Your task to perform on an android device: change notifications settings Image 0: 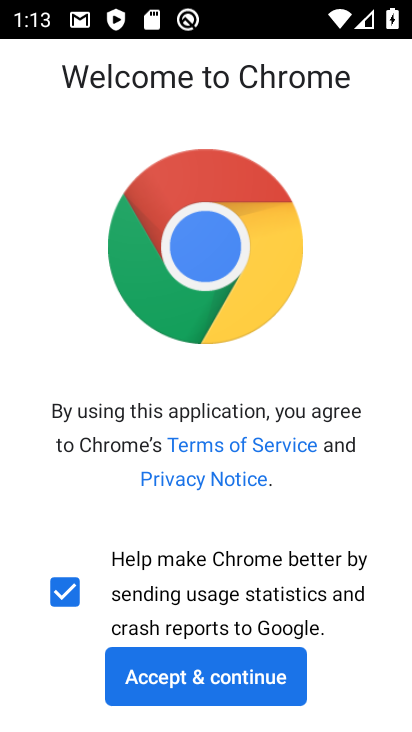
Step 0: press back button
Your task to perform on an android device: change notifications settings Image 1: 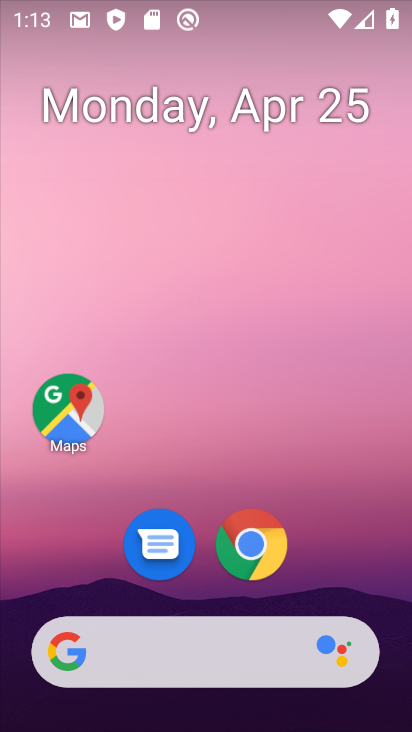
Step 1: drag from (192, 609) to (372, 20)
Your task to perform on an android device: change notifications settings Image 2: 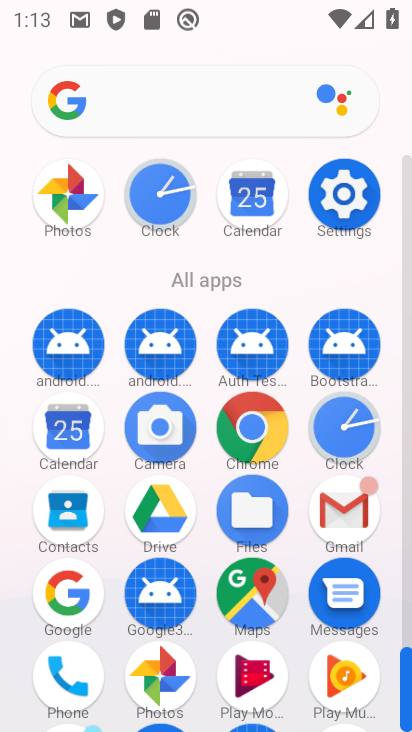
Step 2: click (339, 206)
Your task to perform on an android device: change notifications settings Image 3: 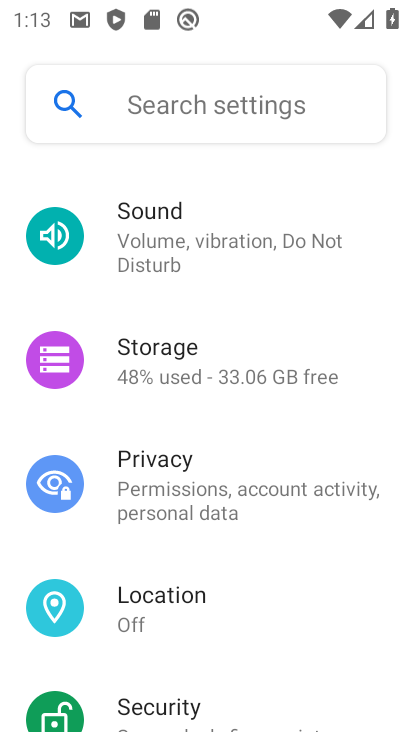
Step 3: drag from (325, 225) to (284, 527)
Your task to perform on an android device: change notifications settings Image 4: 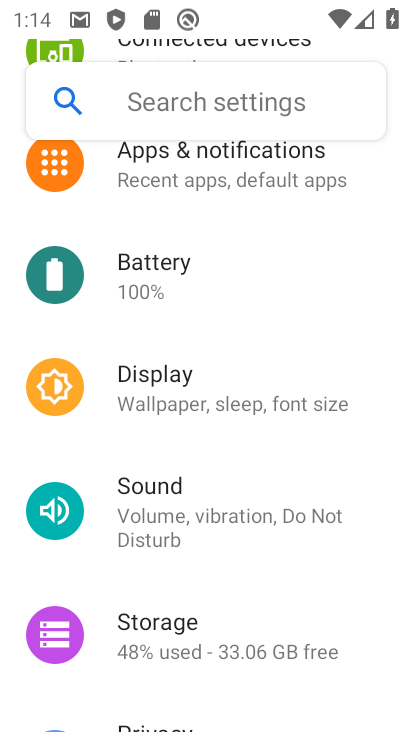
Step 4: click (289, 187)
Your task to perform on an android device: change notifications settings Image 5: 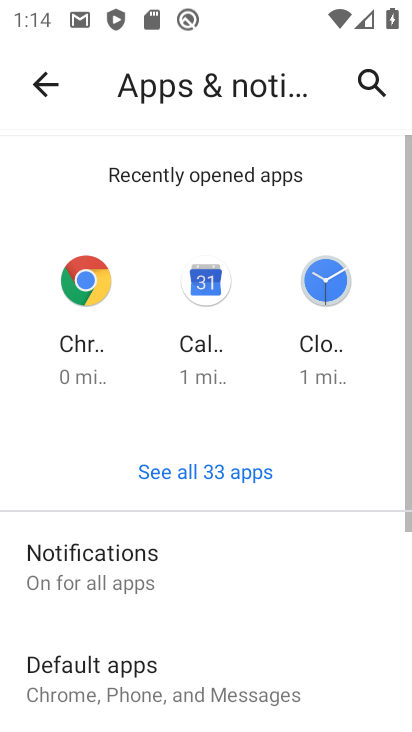
Step 5: drag from (138, 592) to (241, 258)
Your task to perform on an android device: change notifications settings Image 6: 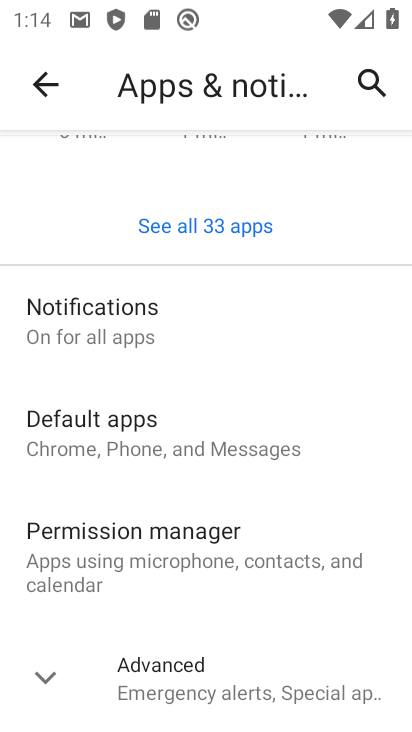
Step 6: click (191, 339)
Your task to perform on an android device: change notifications settings Image 7: 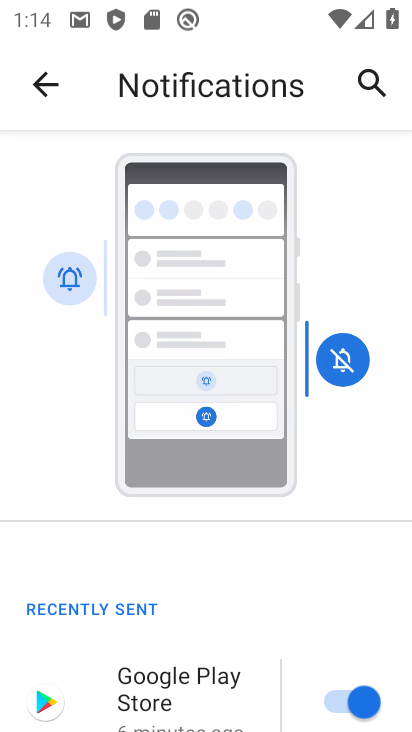
Step 7: task complete